Your task to perform on an android device: toggle data saver in the chrome app Image 0: 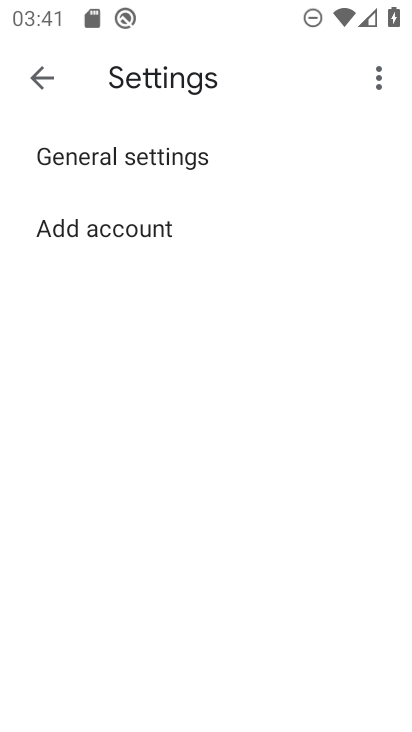
Step 0: press home button
Your task to perform on an android device: toggle data saver in the chrome app Image 1: 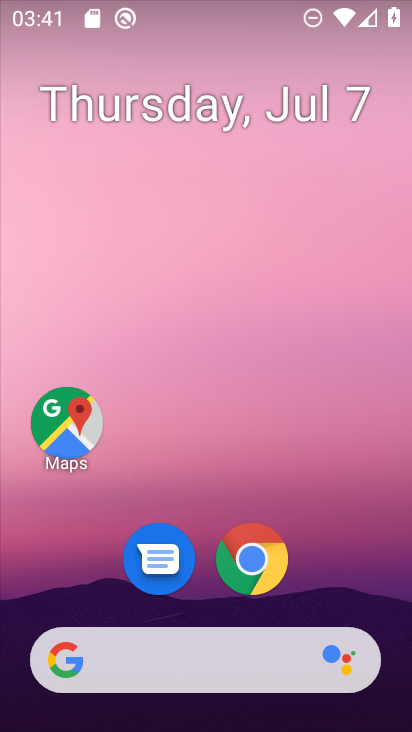
Step 1: drag from (368, 576) to (359, 173)
Your task to perform on an android device: toggle data saver in the chrome app Image 2: 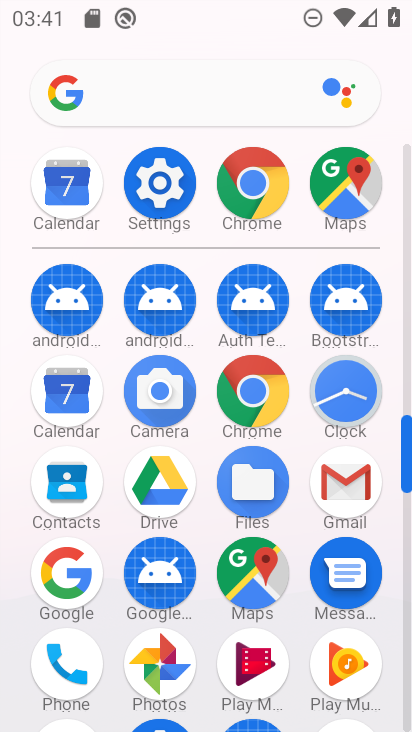
Step 2: click (260, 398)
Your task to perform on an android device: toggle data saver in the chrome app Image 3: 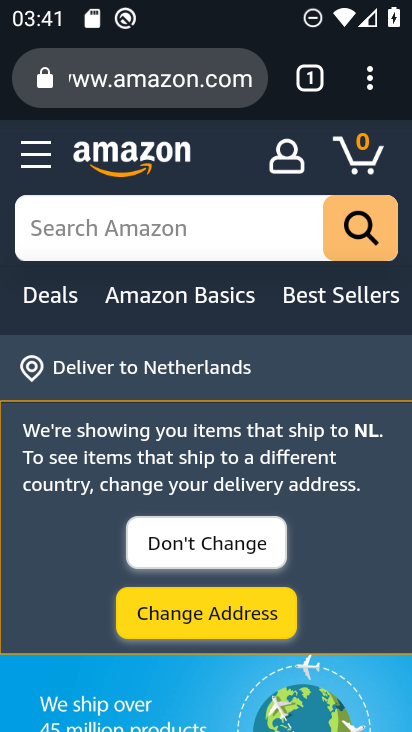
Step 3: click (369, 85)
Your task to perform on an android device: toggle data saver in the chrome app Image 4: 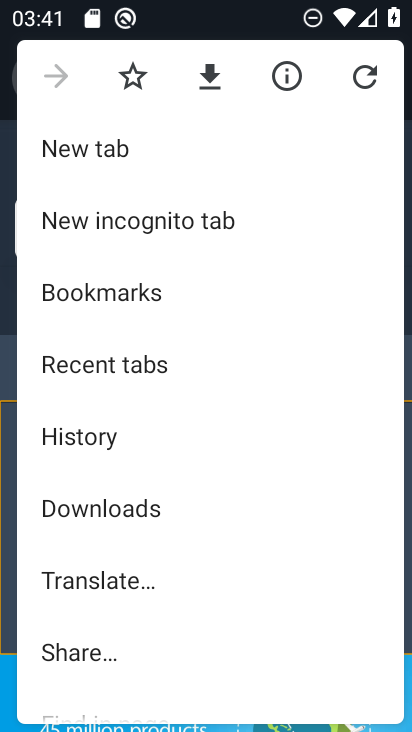
Step 4: drag from (341, 330) to (346, 275)
Your task to perform on an android device: toggle data saver in the chrome app Image 5: 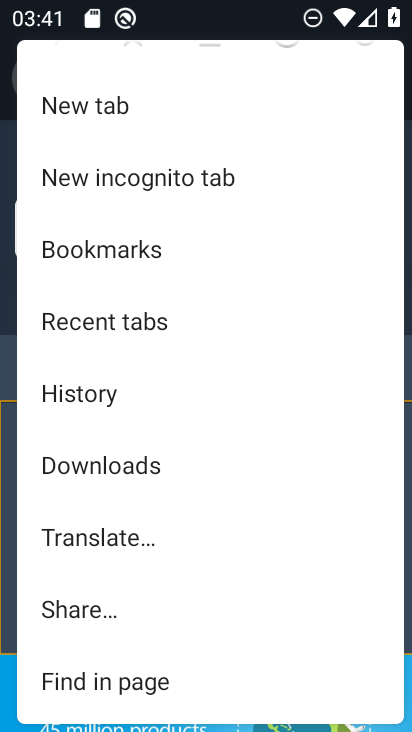
Step 5: drag from (337, 397) to (339, 316)
Your task to perform on an android device: toggle data saver in the chrome app Image 6: 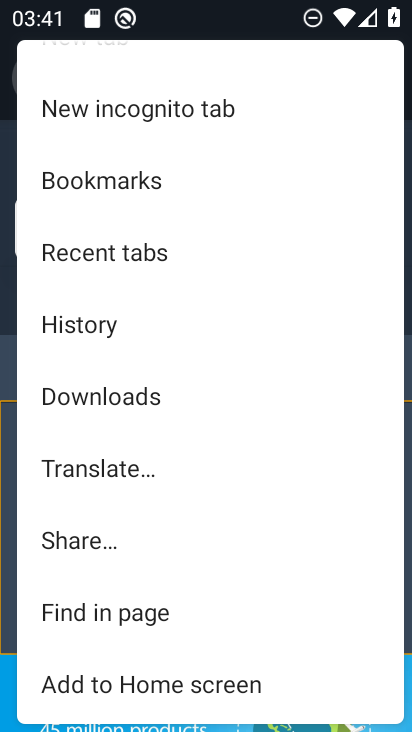
Step 6: drag from (334, 422) to (333, 326)
Your task to perform on an android device: toggle data saver in the chrome app Image 7: 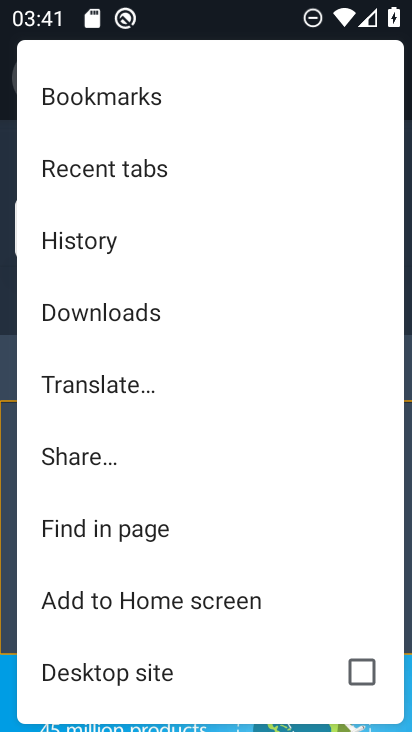
Step 7: drag from (305, 459) to (311, 380)
Your task to perform on an android device: toggle data saver in the chrome app Image 8: 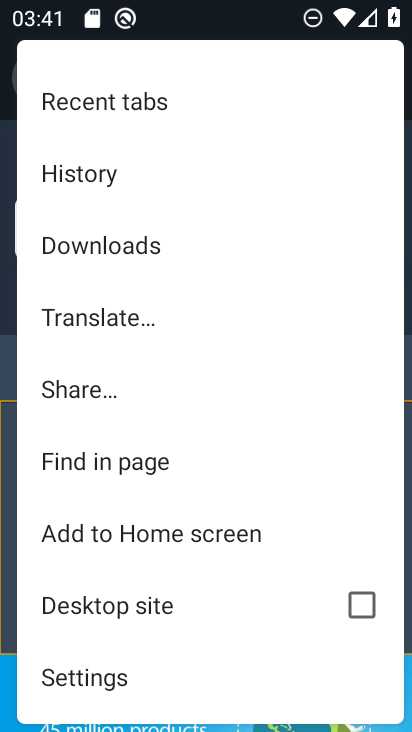
Step 8: drag from (295, 477) to (302, 392)
Your task to perform on an android device: toggle data saver in the chrome app Image 9: 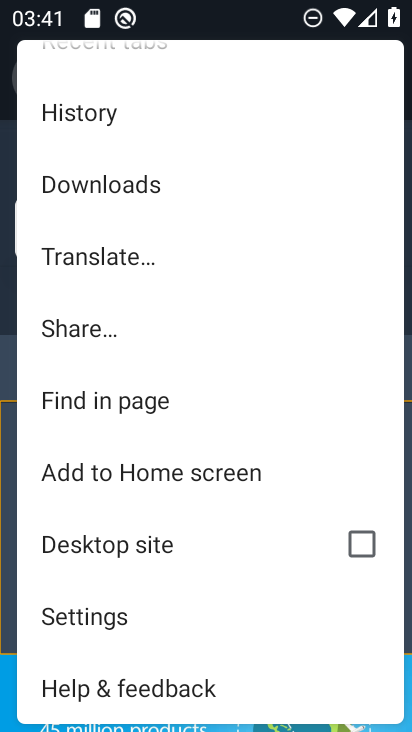
Step 9: drag from (280, 507) to (285, 398)
Your task to perform on an android device: toggle data saver in the chrome app Image 10: 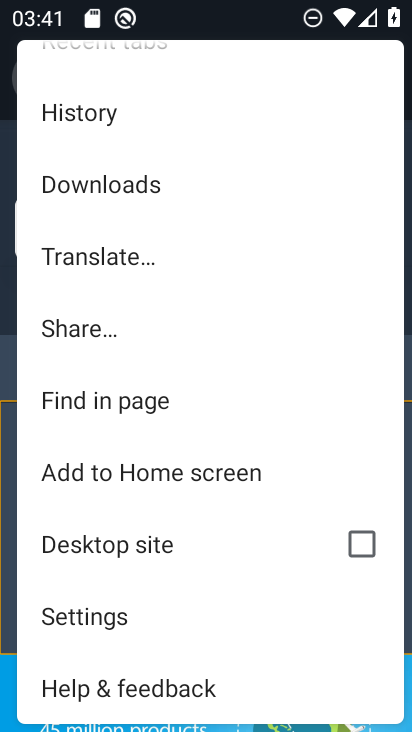
Step 10: click (151, 633)
Your task to perform on an android device: toggle data saver in the chrome app Image 11: 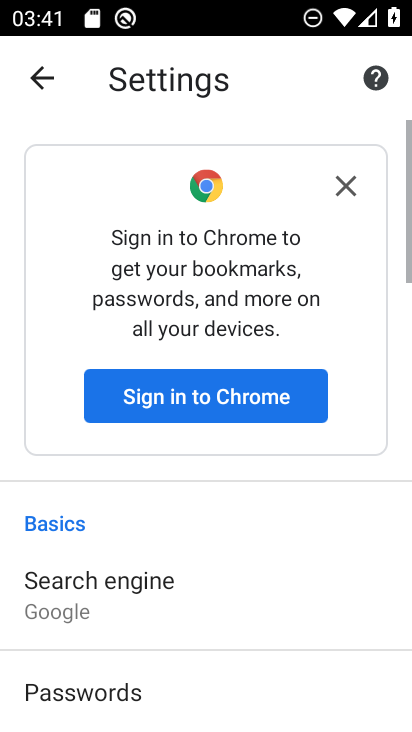
Step 11: drag from (350, 566) to (355, 465)
Your task to perform on an android device: toggle data saver in the chrome app Image 12: 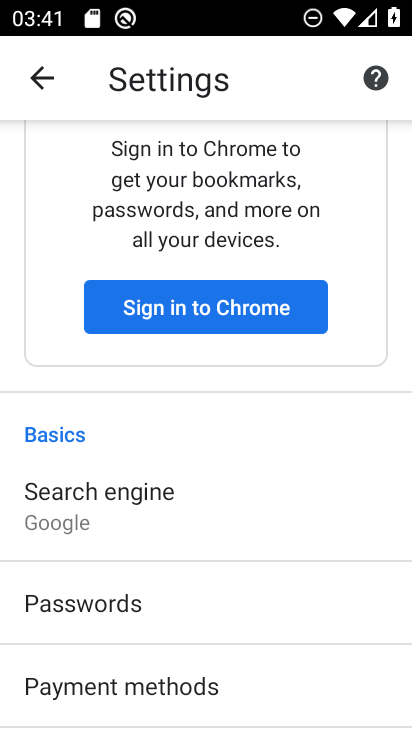
Step 12: drag from (338, 545) to (342, 451)
Your task to perform on an android device: toggle data saver in the chrome app Image 13: 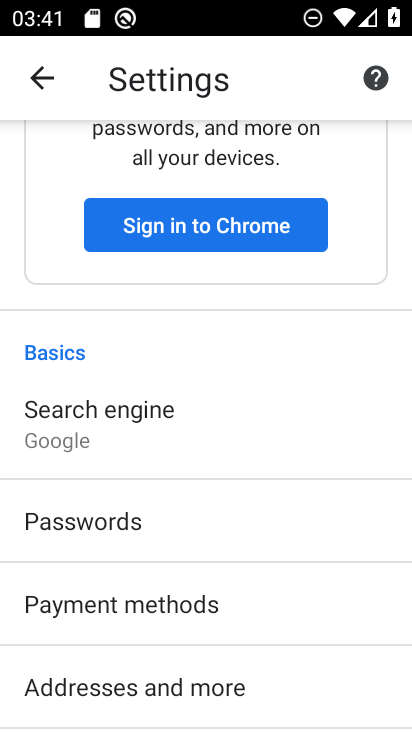
Step 13: drag from (335, 563) to (337, 453)
Your task to perform on an android device: toggle data saver in the chrome app Image 14: 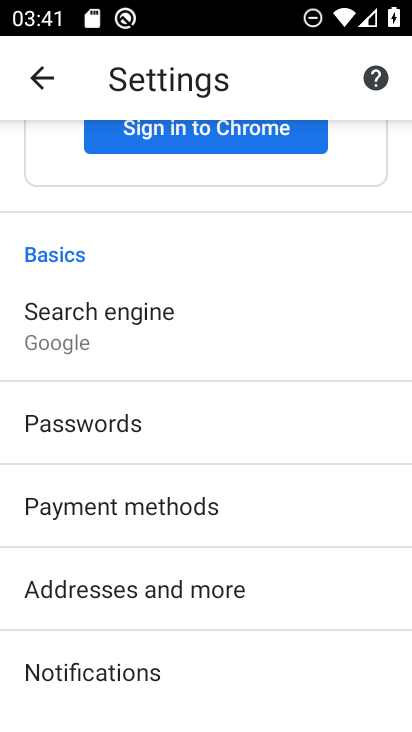
Step 14: drag from (332, 598) to (333, 503)
Your task to perform on an android device: toggle data saver in the chrome app Image 15: 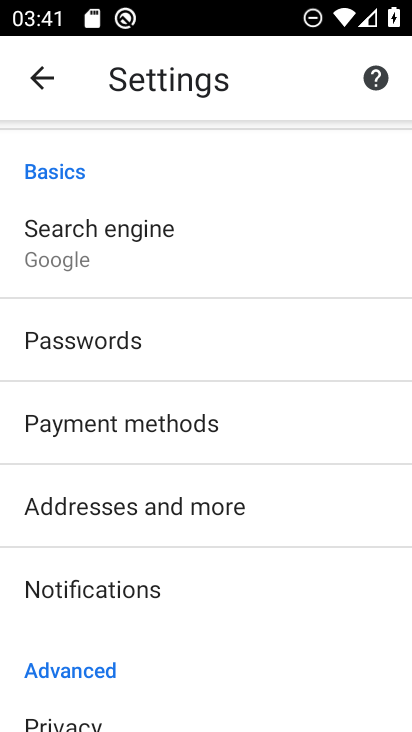
Step 15: drag from (323, 576) to (331, 520)
Your task to perform on an android device: toggle data saver in the chrome app Image 16: 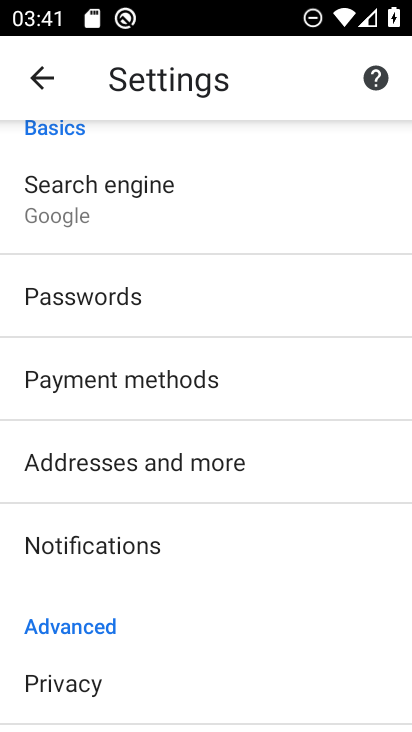
Step 16: drag from (319, 556) to (319, 511)
Your task to perform on an android device: toggle data saver in the chrome app Image 17: 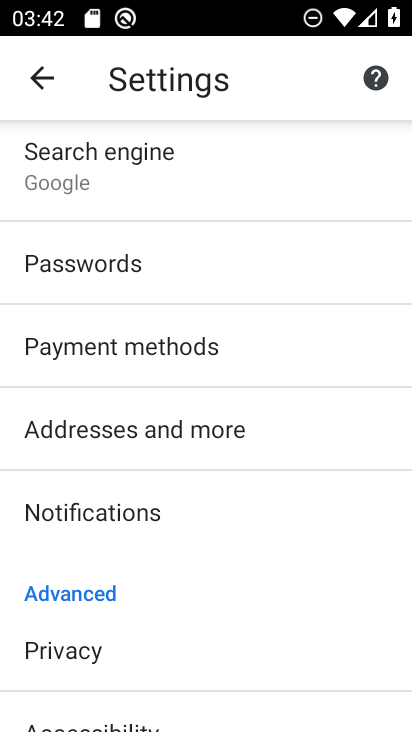
Step 17: drag from (310, 580) to (310, 491)
Your task to perform on an android device: toggle data saver in the chrome app Image 18: 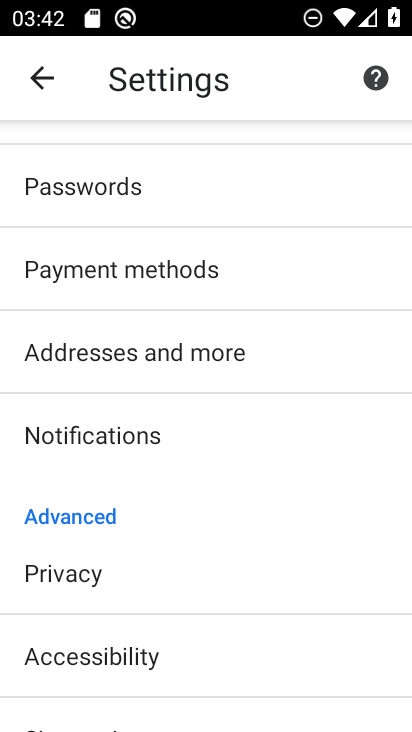
Step 18: drag from (300, 566) to (300, 483)
Your task to perform on an android device: toggle data saver in the chrome app Image 19: 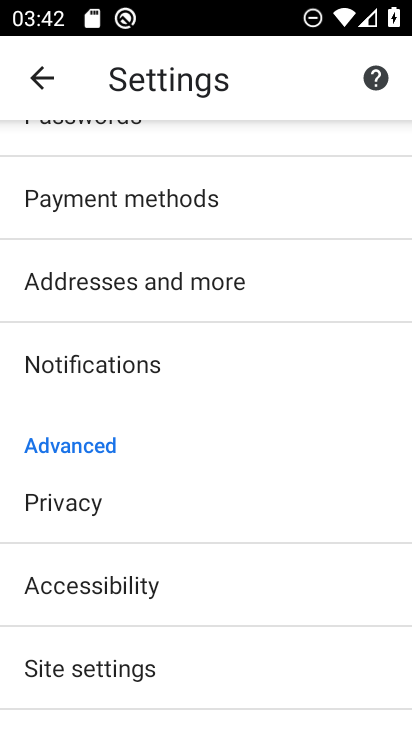
Step 19: drag from (284, 584) to (288, 490)
Your task to perform on an android device: toggle data saver in the chrome app Image 20: 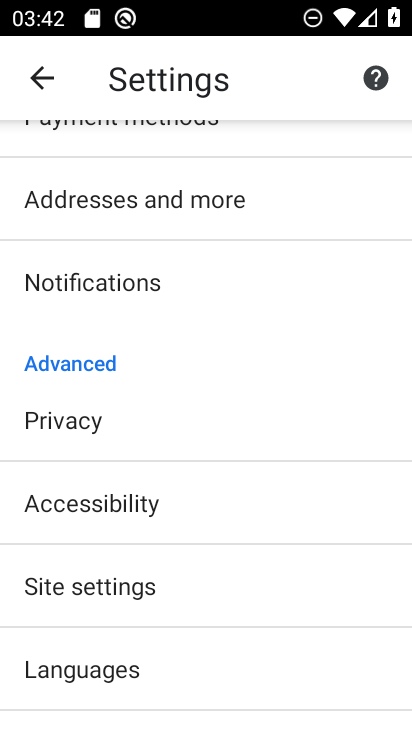
Step 20: drag from (288, 592) to (293, 502)
Your task to perform on an android device: toggle data saver in the chrome app Image 21: 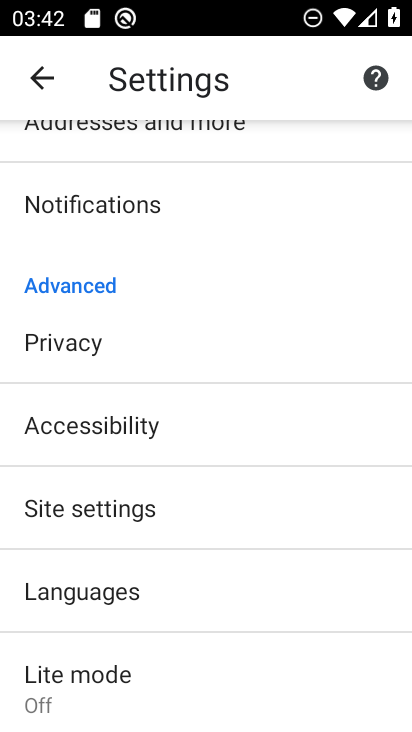
Step 21: drag from (264, 639) to (258, 525)
Your task to perform on an android device: toggle data saver in the chrome app Image 22: 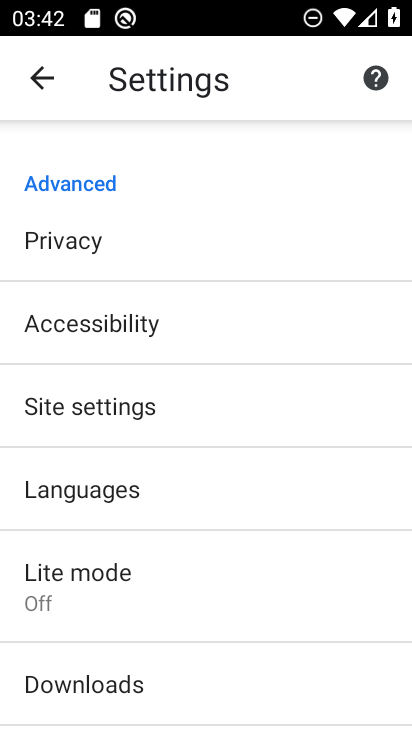
Step 22: click (253, 611)
Your task to perform on an android device: toggle data saver in the chrome app Image 23: 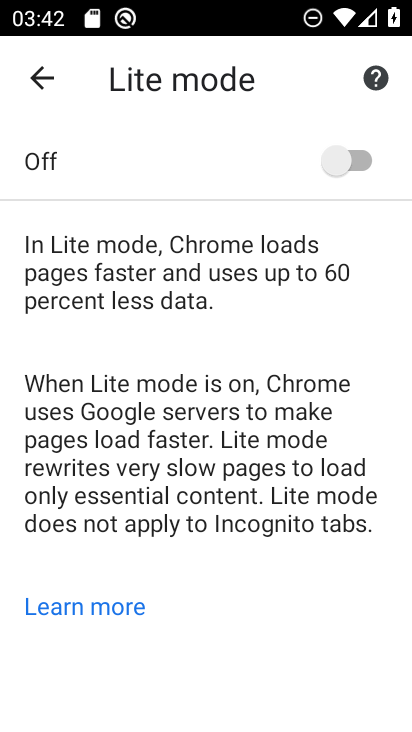
Step 23: click (359, 170)
Your task to perform on an android device: toggle data saver in the chrome app Image 24: 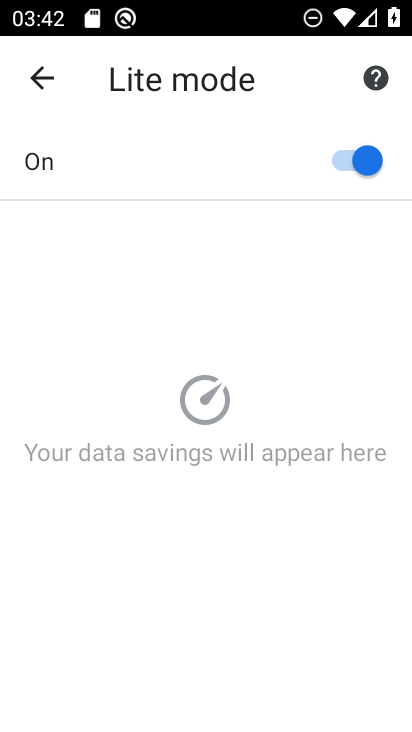
Step 24: task complete